Your task to perform on an android device: Open Chrome and go to the settings page Image 0: 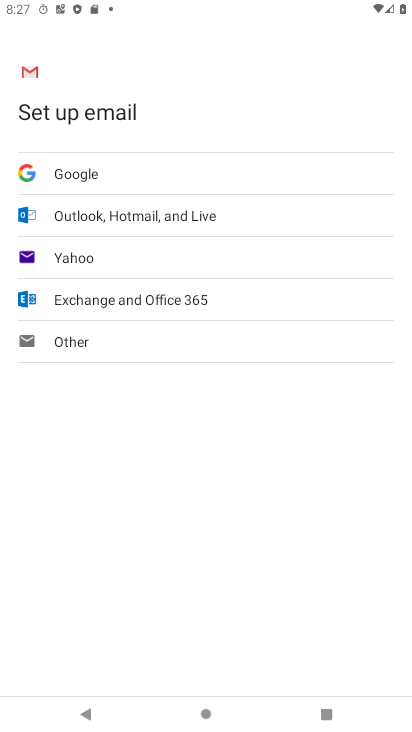
Step 0: press home button
Your task to perform on an android device: Open Chrome and go to the settings page Image 1: 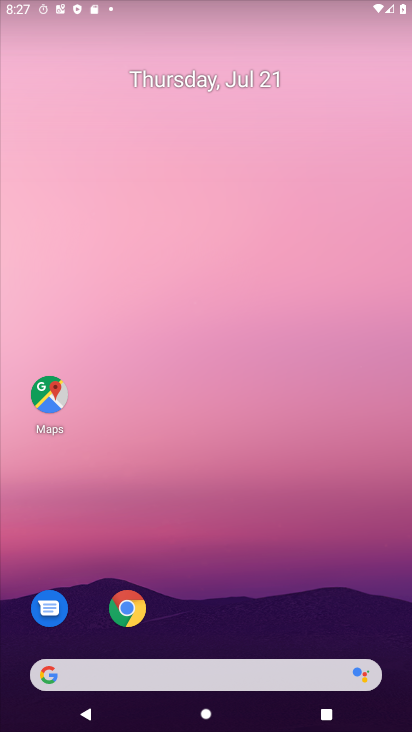
Step 1: click (227, 611)
Your task to perform on an android device: Open Chrome and go to the settings page Image 2: 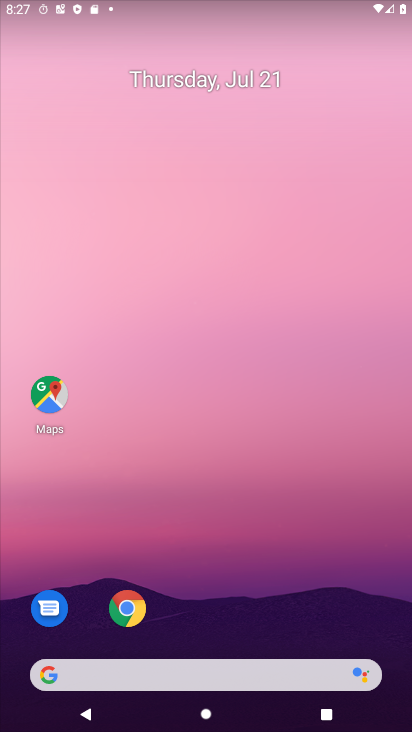
Step 2: click (126, 626)
Your task to perform on an android device: Open Chrome and go to the settings page Image 3: 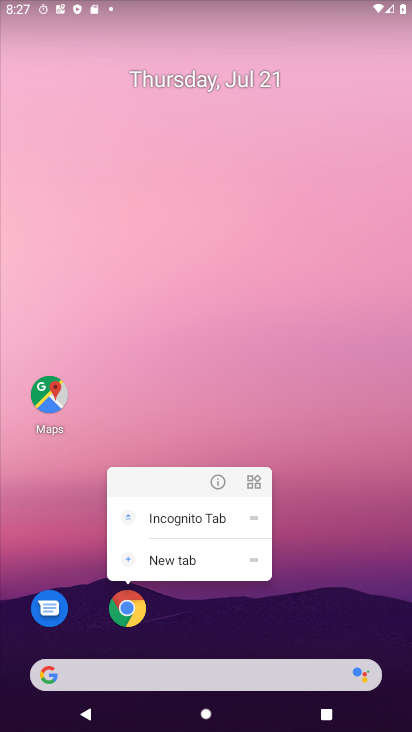
Step 3: click (126, 626)
Your task to perform on an android device: Open Chrome and go to the settings page Image 4: 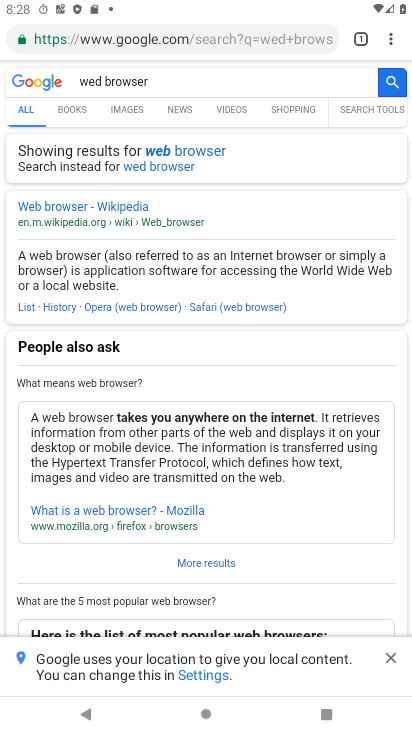
Step 4: task complete